Your task to perform on an android device: Open settings Image 0: 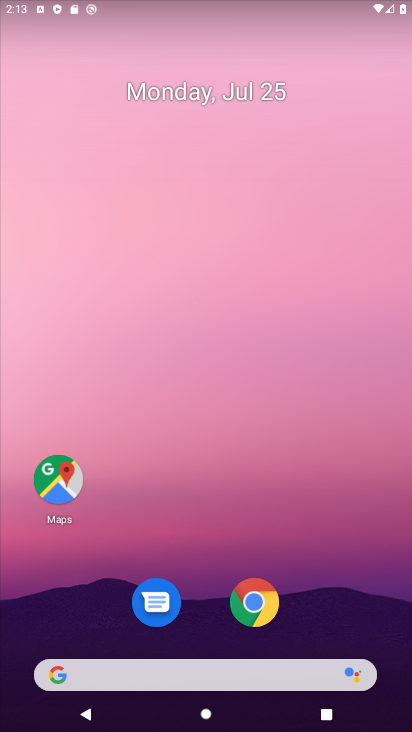
Step 0: drag from (266, 409) to (287, 72)
Your task to perform on an android device: Open settings Image 1: 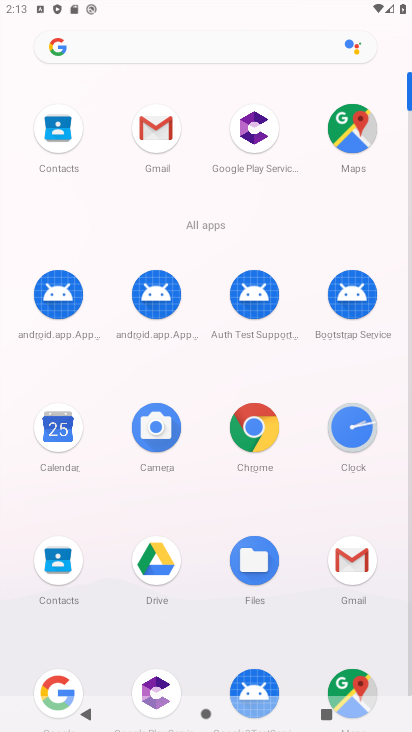
Step 1: drag from (279, 587) to (277, 308)
Your task to perform on an android device: Open settings Image 2: 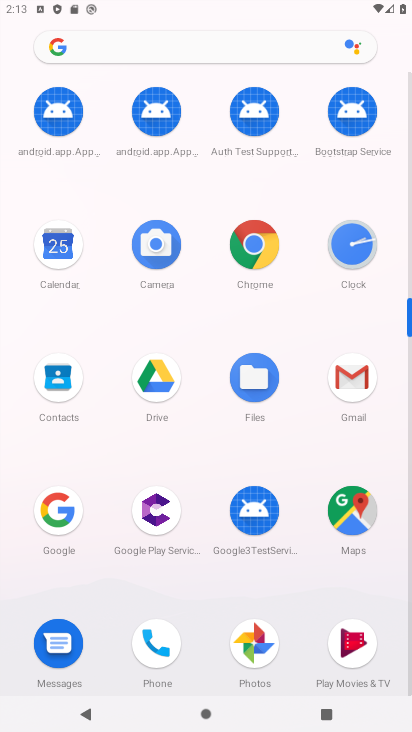
Step 2: drag from (207, 621) to (196, 415)
Your task to perform on an android device: Open settings Image 3: 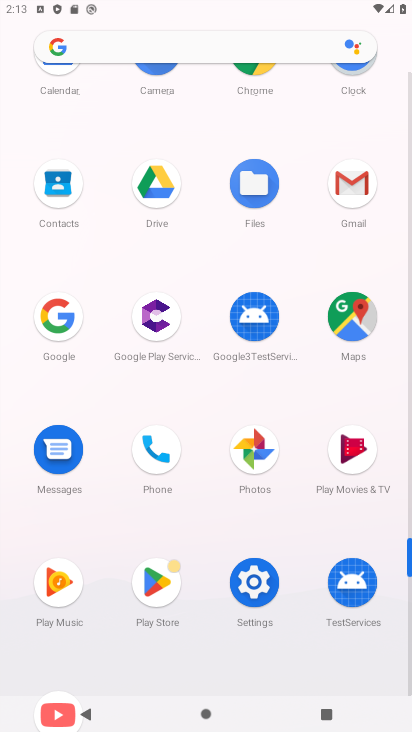
Step 3: click (249, 576)
Your task to perform on an android device: Open settings Image 4: 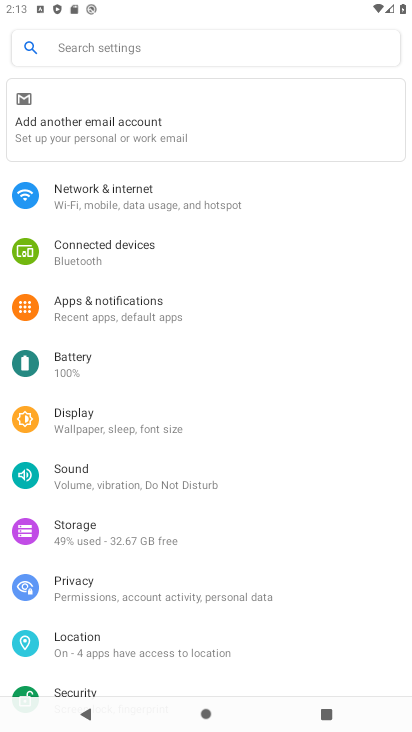
Step 4: task complete